Your task to perform on an android device: Search for seafood restaurants on Google Maps Image 0: 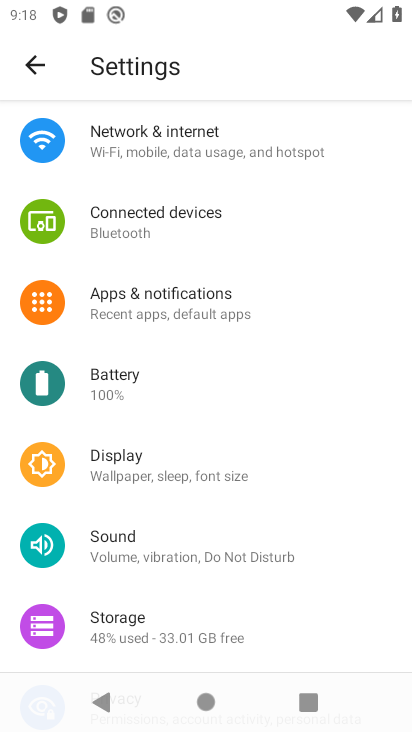
Step 0: press home button
Your task to perform on an android device: Search for seafood restaurants on Google Maps Image 1: 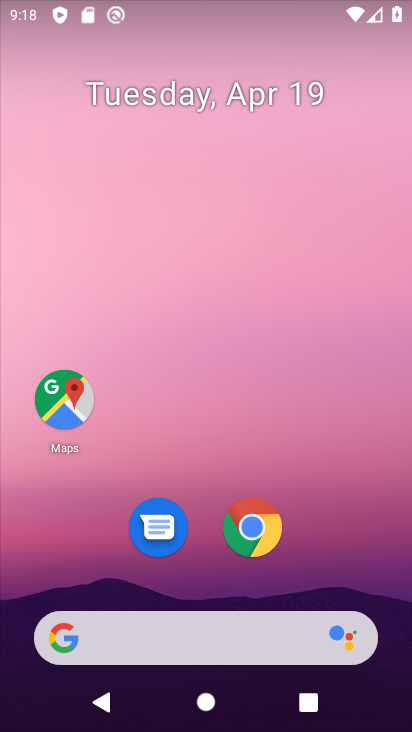
Step 1: drag from (232, 675) to (307, 145)
Your task to perform on an android device: Search for seafood restaurants on Google Maps Image 2: 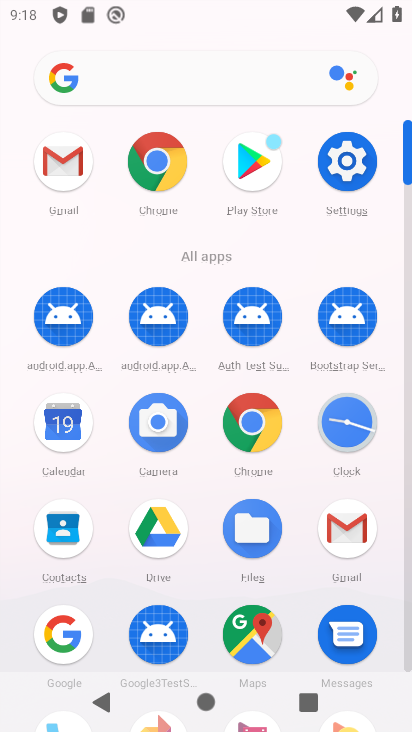
Step 2: click (255, 620)
Your task to perform on an android device: Search for seafood restaurants on Google Maps Image 3: 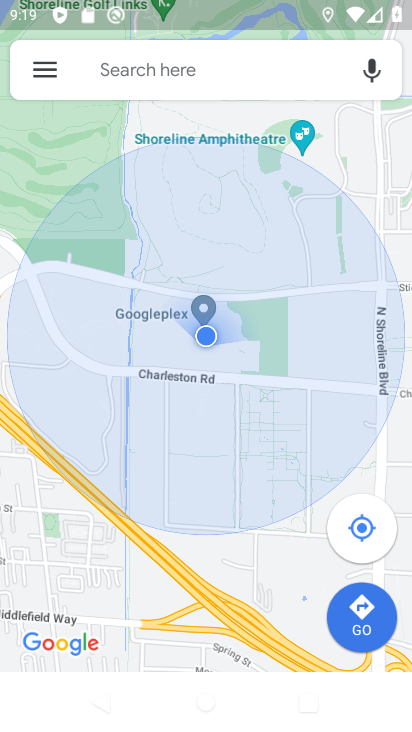
Step 3: click (152, 69)
Your task to perform on an android device: Search for seafood restaurants on Google Maps Image 4: 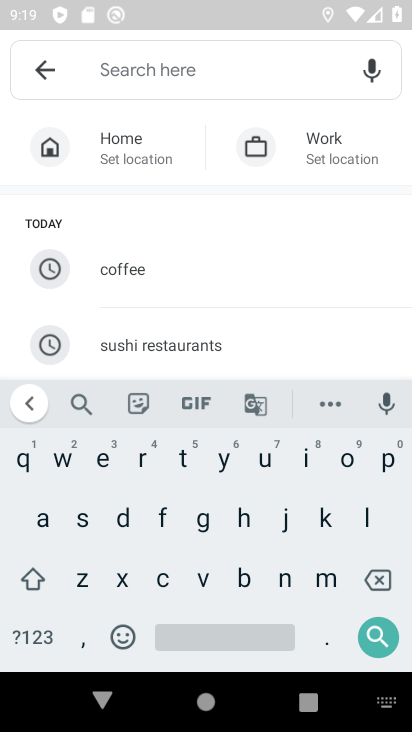
Step 4: click (74, 526)
Your task to perform on an android device: Search for seafood restaurants on Google Maps Image 5: 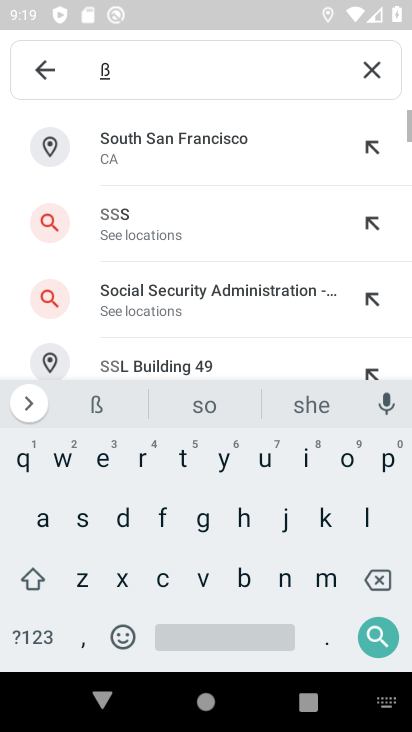
Step 5: click (378, 583)
Your task to perform on an android device: Search for seafood restaurants on Google Maps Image 6: 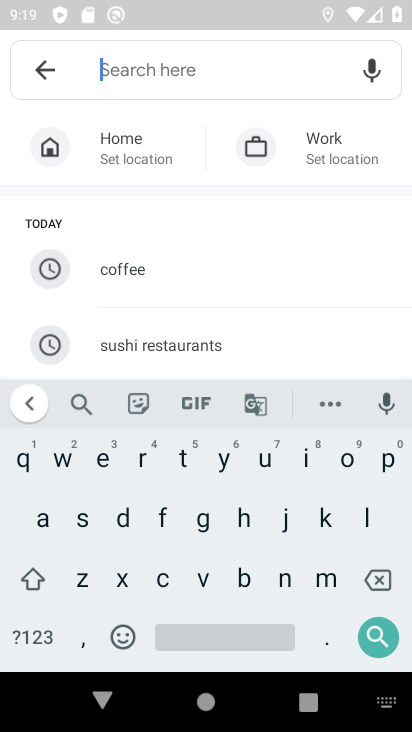
Step 6: click (84, 521)
Your task to perform on an android device: Search for seafood restaurants on Google Maps Image 7: 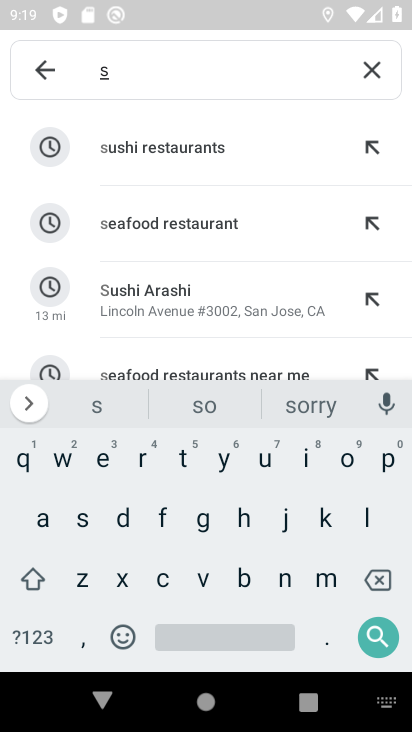
Step 7: click (164, 223)
Your task to perform on an android device: Search for seafood restaurants on Google Maps Image 8: 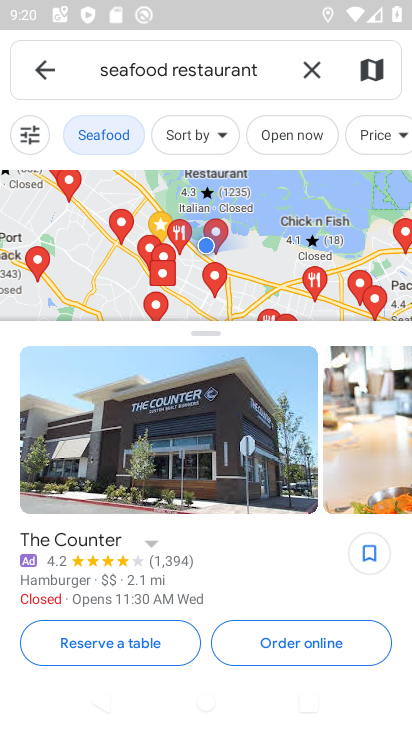
Step 8: click (181, 292)
Your task to perform on an android device: Search for seafood restaurants on Google Maps Image 9: 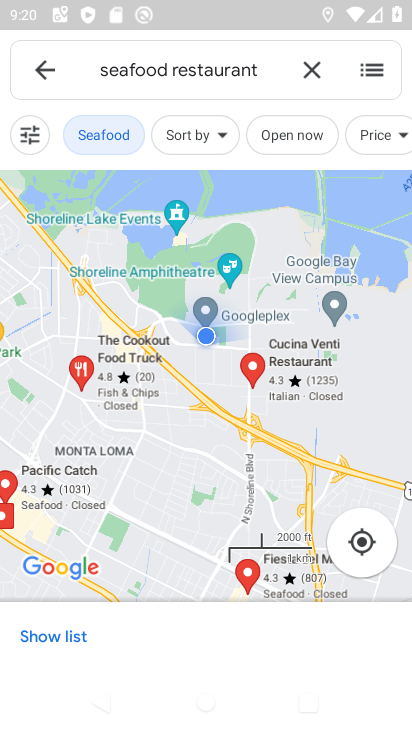
Step 9: task complete